Your task to perform on an android device: Show me productivity apps on the Play Store Image 0: 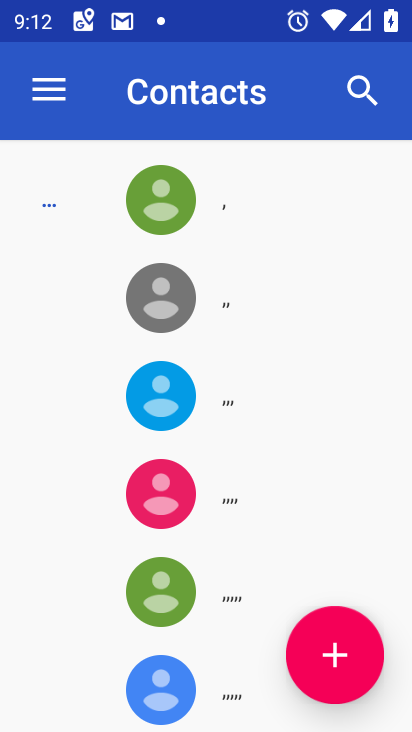
Step 0: press home button
Your task to perform on an android device: Show me productivity apps on the Play Store Image 1: 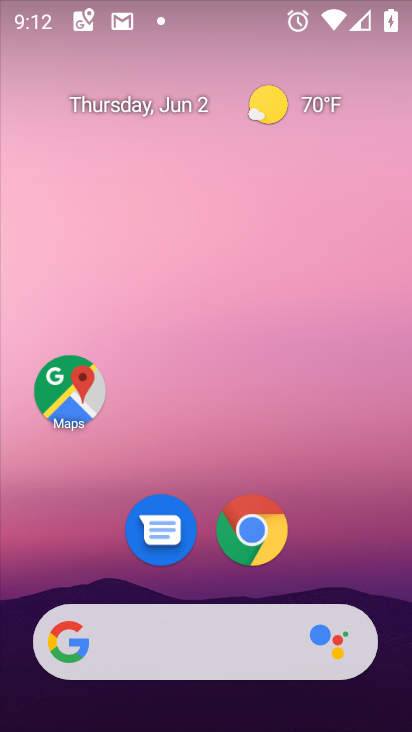
Step 1: drag from (160, 587) to (131, 306)
Your task to perform on an android device: Show me productivity apps on the Play Store Image 2: 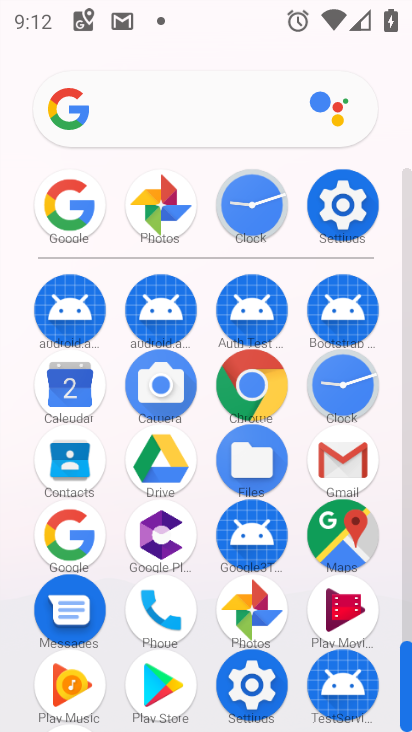
Step 2: drag from (194, 679) to (181, 381)
Your task to perform on an android device: Show me productivity apps on the Play Store Image 3: 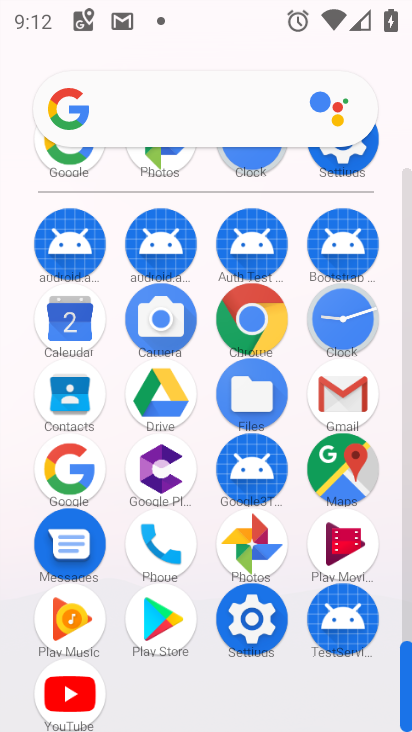
Step 3: click (163, 627)
Your task to perform on an android device: Show me productivity apps on the Play Store Image 4: 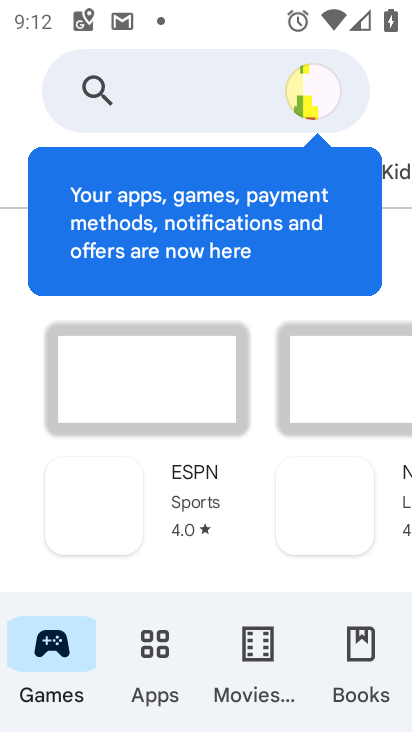
Step 4: click (153, 657)
Your task to perform on an android device: Show me productivity apps on the Play Store Image 5: 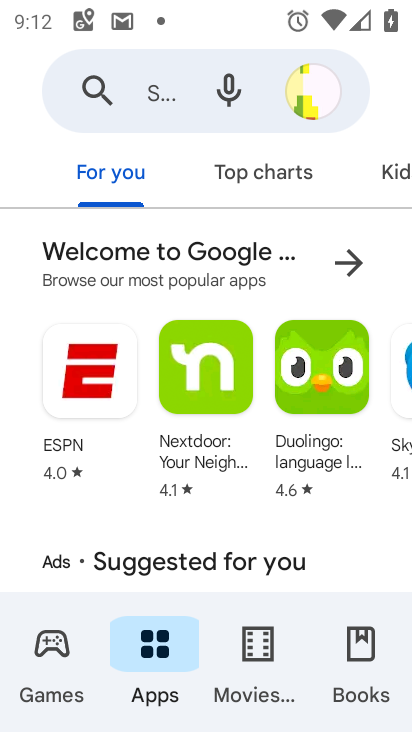
Step 5: task complete